Your task to perform on an android device: move a message to another label in the gmail app Image 0: 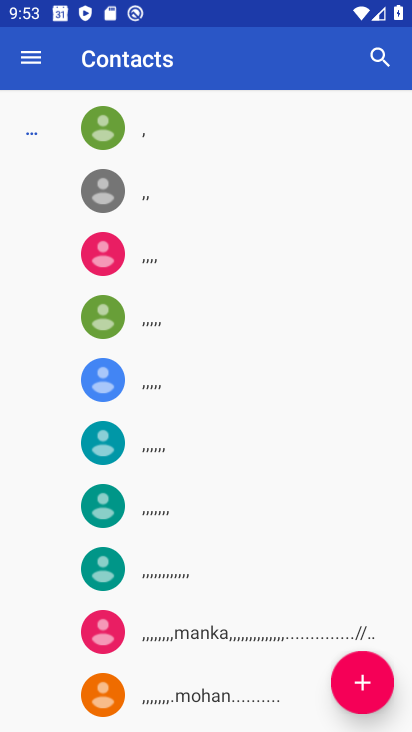
Step 0: press home button
Your task to perform on an android device: move a message to another label in the gmail app Image 1: 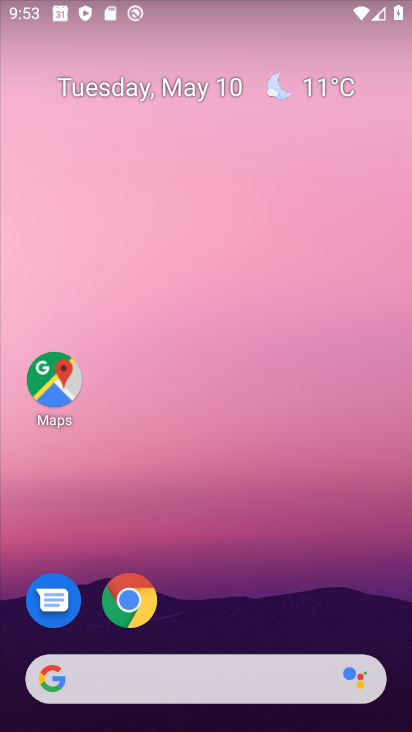
Step 1: drag from (289, 538) to (234, 179)
Your task to perform on an android device: move a message to another label in the gmail app Image 2: 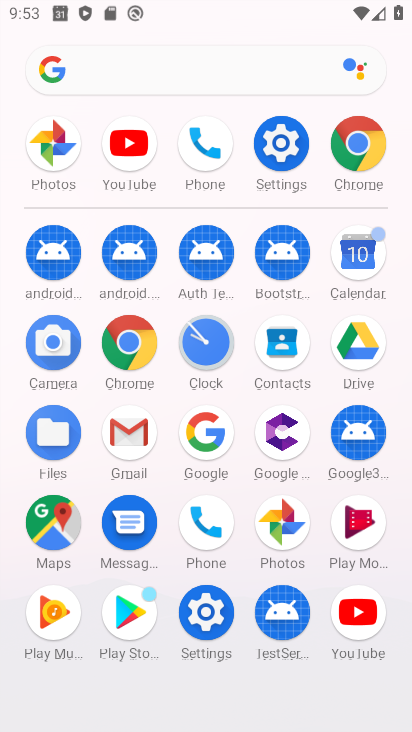
Step 2: click (113, 443)
Your task to perform on an android device: move a message to another label in the gmail app Image 3: 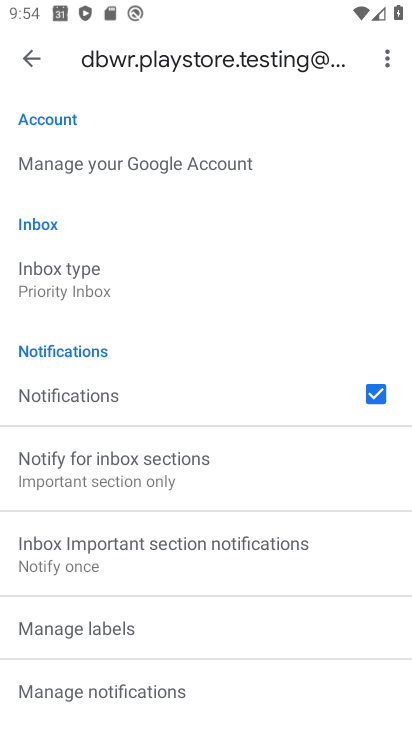
Step 3: click (30, 62)
Your task to perform on an android device: move a message to another label in the gmail app Image 4: 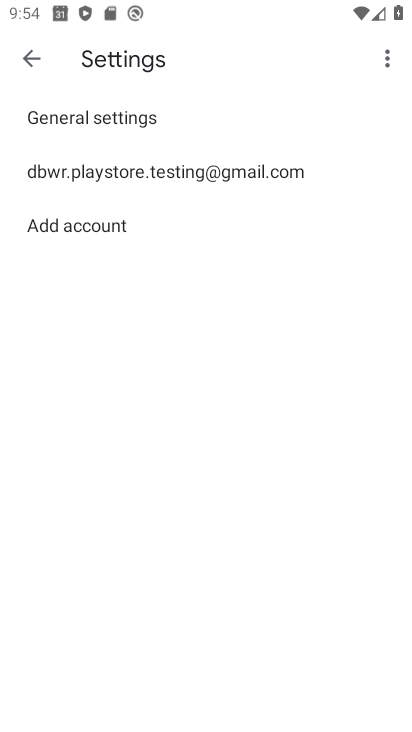
Step 4: click (30, 62)
Your task to perform on an android device: move a message to another label in the gmail app Image 5: 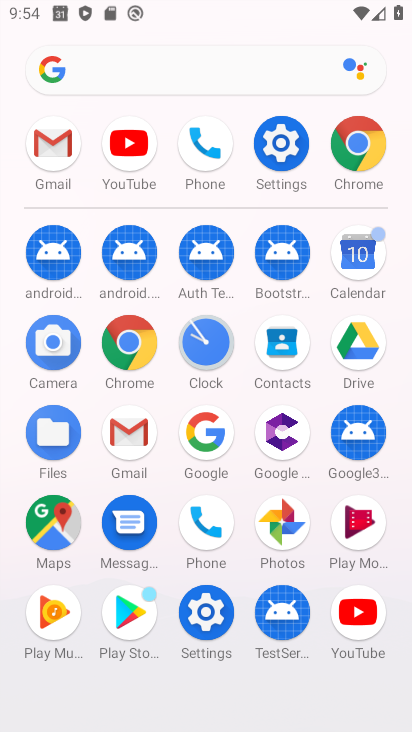
Step 5: click (152, 423)
Your task to perform on an android device: move a message to another label in the gmail app Image 6: 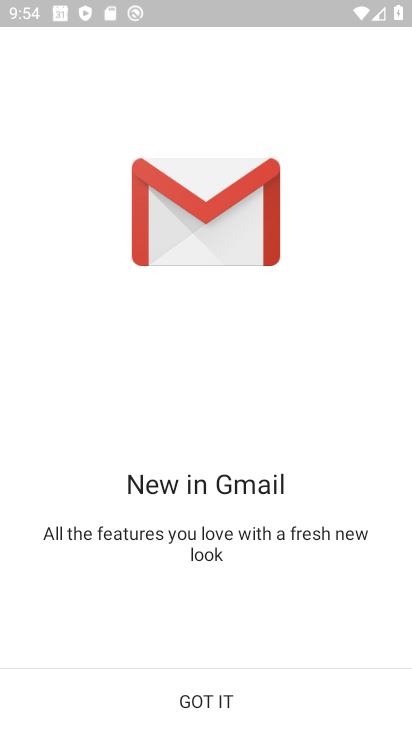
Step 6: click (204, 699)
Your task to perform on an android device: move a message to another label in the gmail app Image 7: 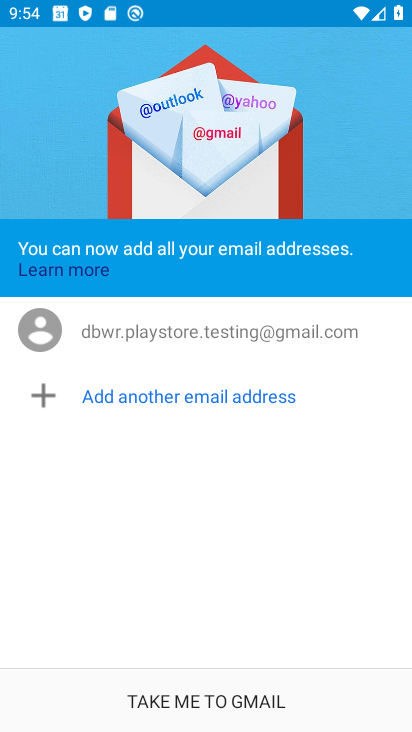
Step 7: click (195, 689)
Your task to perform on an android device: move a message to another label in the gmail app Image 8: 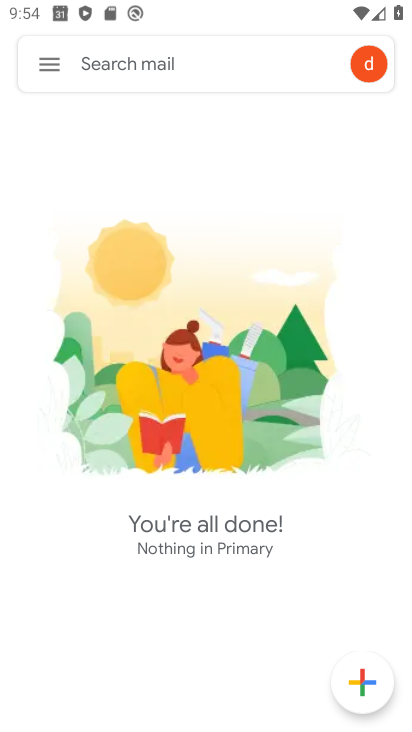
Step 8: press home button
Your task to perform on an android device: move a message to another label in the gmail app Image 9: 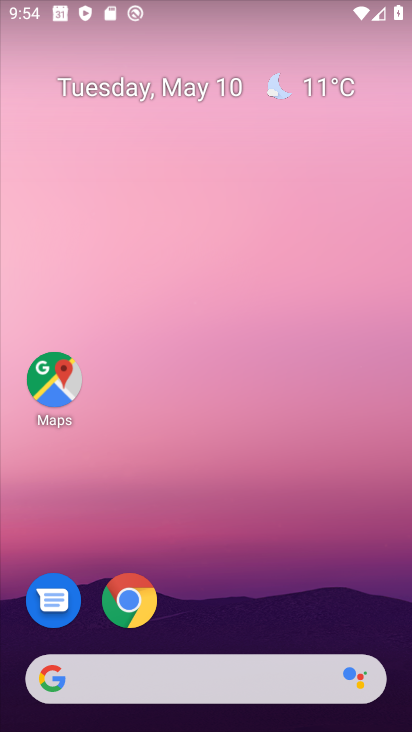
Step 9: drag from (245, 529) to (322, 45)
Your task to perform on an android device: move a message to another label in the gmail app Image 10: 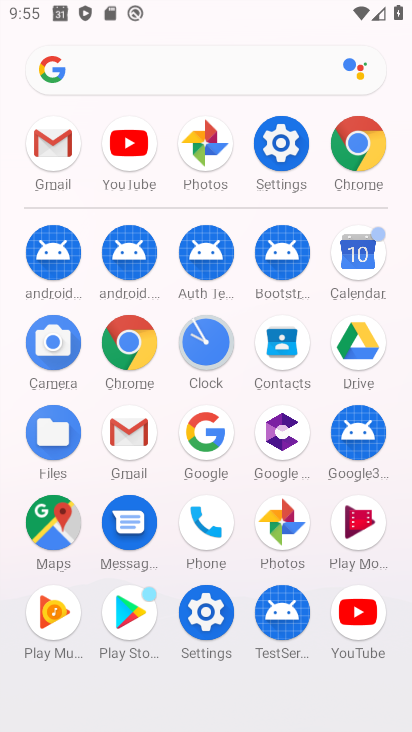
Step 10: click (123, 442)
Your task to perform on an android device: move a message to another label in the gmail app Image 11: 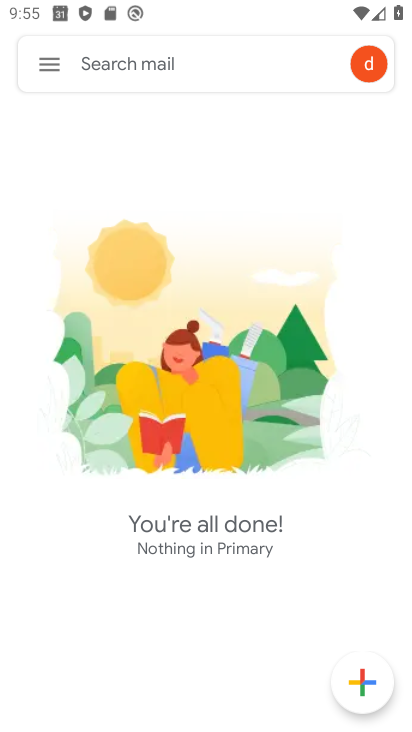
Step 11: press home button
Your task to perform on an android device: move a message to another label in the gmail app Image 12: 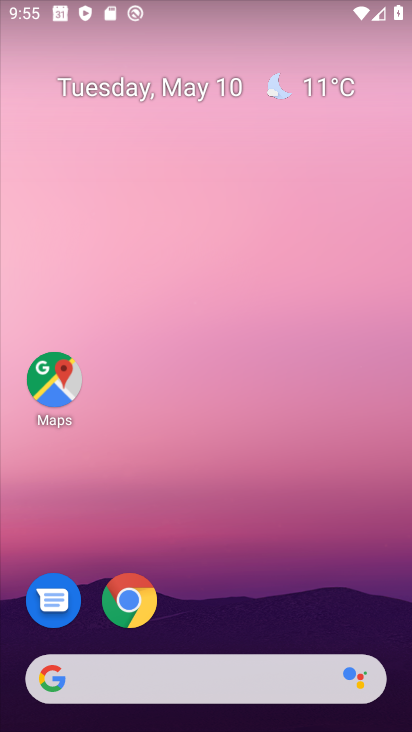
Step 12: drag from (279, 544) to (195, 234)
Your task to perform on an android device: move a message to another label in the gmail app Image 13: 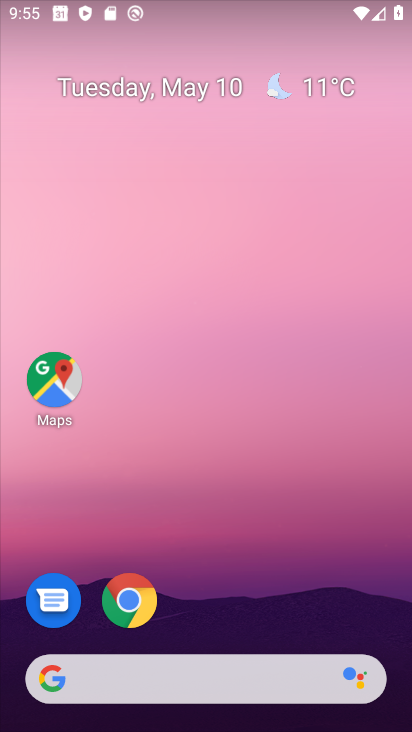
Step 13: drag from (300, 575) to (268, 189)
Your task to perform on an android device: move a message to another label in the gmail app Image 14: 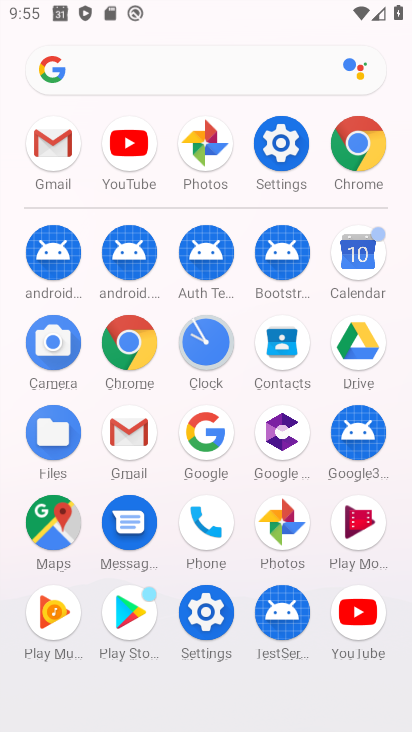
Step 14: click (48, 146)
Your task to perform on an android device: move a message to another label in the gmail app Image 15: 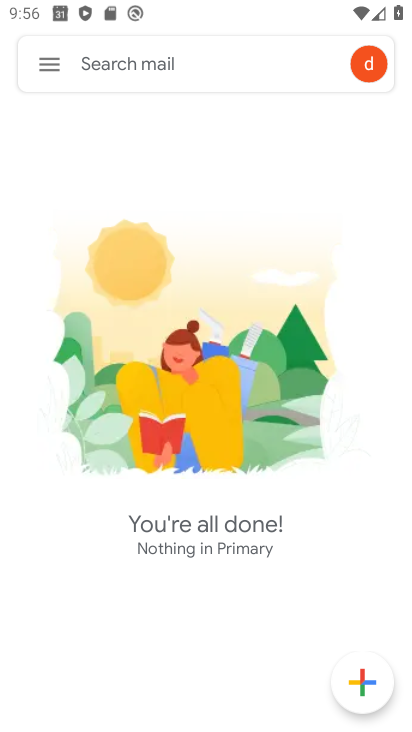
Step 15: click (38, 56)
Your task to perform on an android device: move a message to another label in the gmail app Image 16: 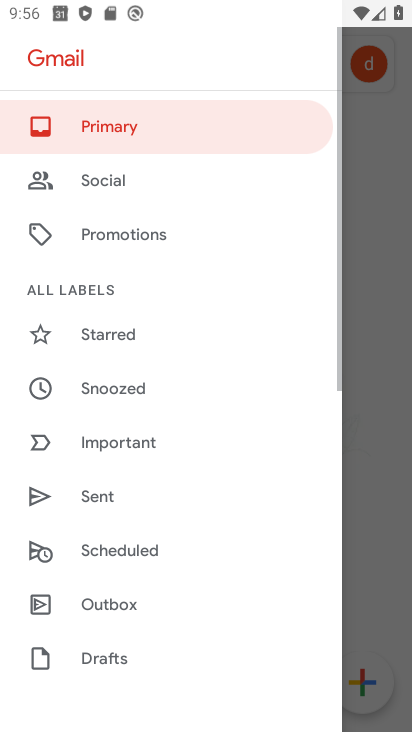
Step 16: drag from (153, 662) to (201, 202)
Your task to perform on an android device: move a message to another label in the gmail app Image 17: 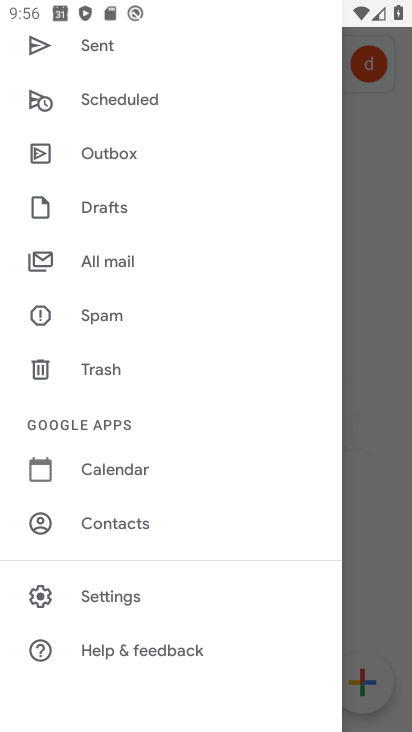
Step 17: click (122, 261)
Your task to perform on an android device: move a message to another label in the gmail app Image 18: 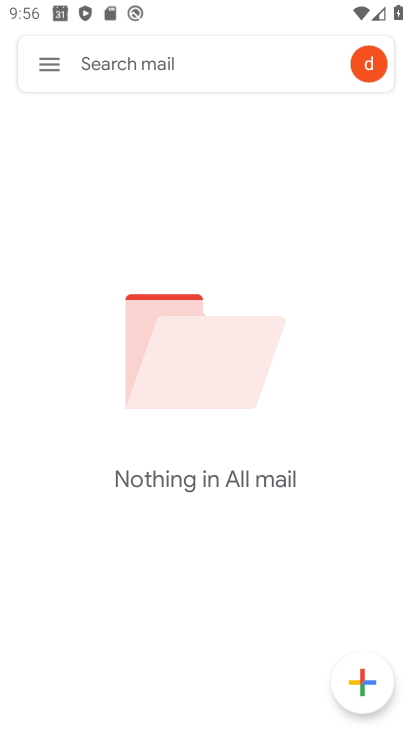
Step 18: task complete